Your task to perform on an android device: toggle data saver in the chrome app Image 0: 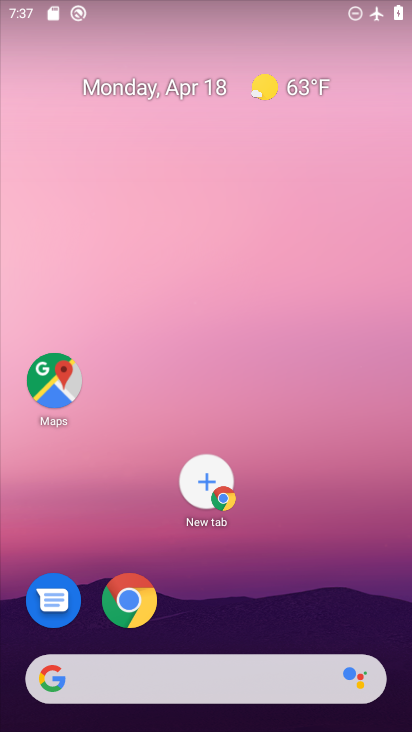
Step 0: click (133, 603)
Your task to perform on an android device: toggle data saver in the chrome app Image 1: 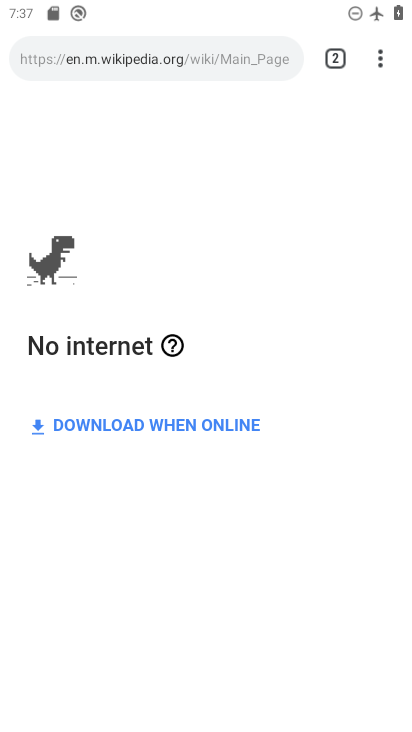
Step 1: click (372, 56)
Your task to perform on an android device: toggle data saver in the chrome app Image 2: 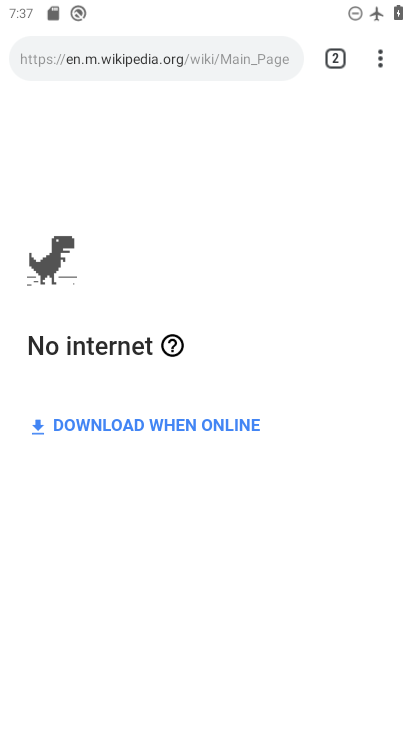
Step 2: click (380, 57)
Your task to perform on an android device: toggle data saver in the chrome app Image 3: 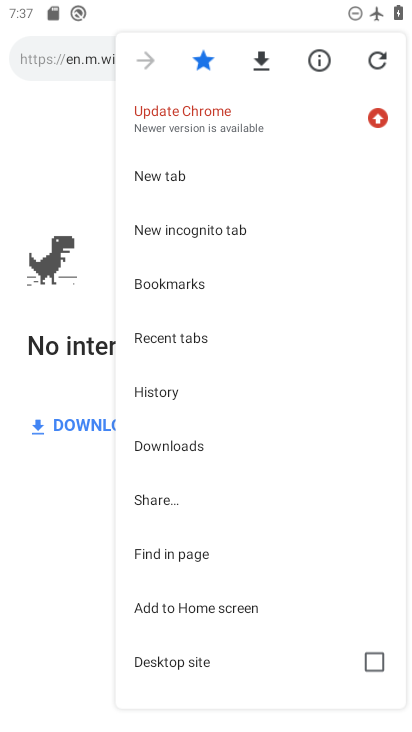
Step 3: drag from (293, 538) to (289, 109)
Your task to perform on an android device: toggle data saver in the chrome app Image 4: 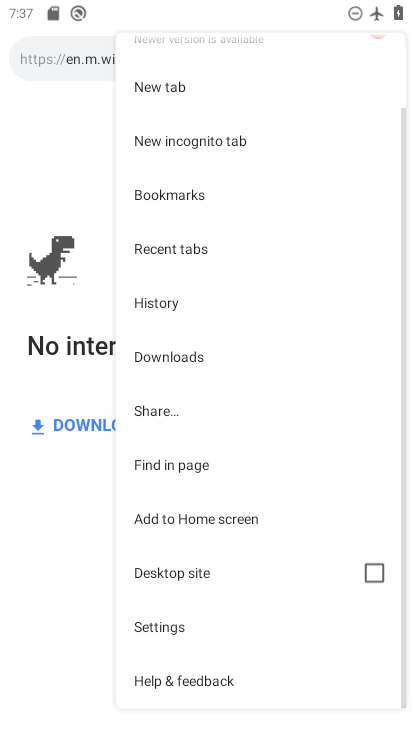
Step 4: click (168, 625)
Your task to perform on an android device: toggle data saver in the chrome app Image 5: 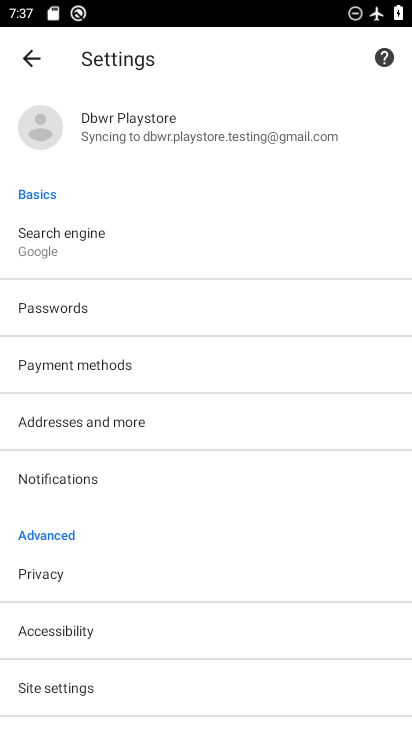
Step 5: drag from (179, 631) to (255, 156)
Your task to perform on an android device: toggle data saver in the chrome app Image 6: 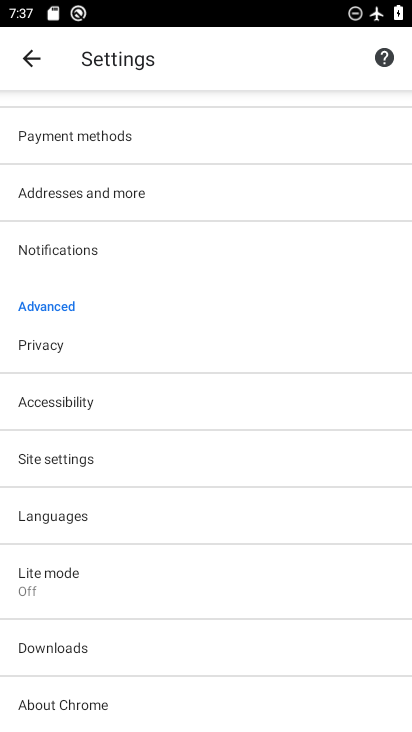
Step 6: click (48, 580)
Your task to perform on an android device: toggle data saver in the chrome app Image 7: 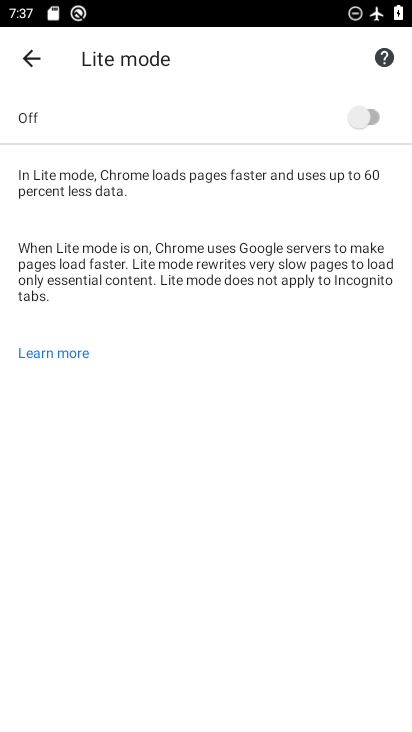
Step 7: click (356, 119)
Your task to perform on an android device: toggle data saver in the chrome app Image 8: 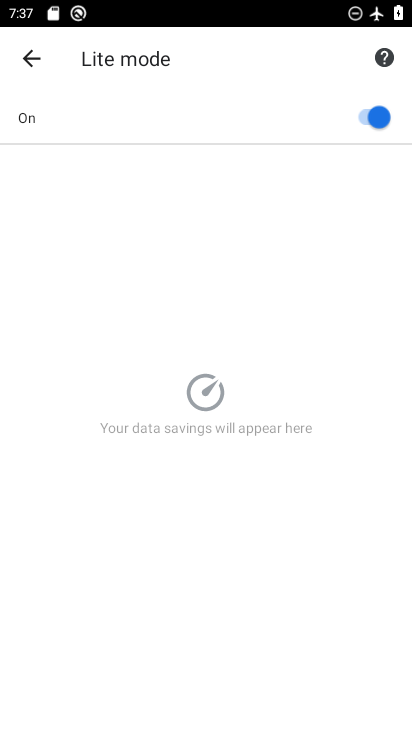
Step 8: task complete